Your task to perform on an android device: Show me popular videos on Youtube Image 0: 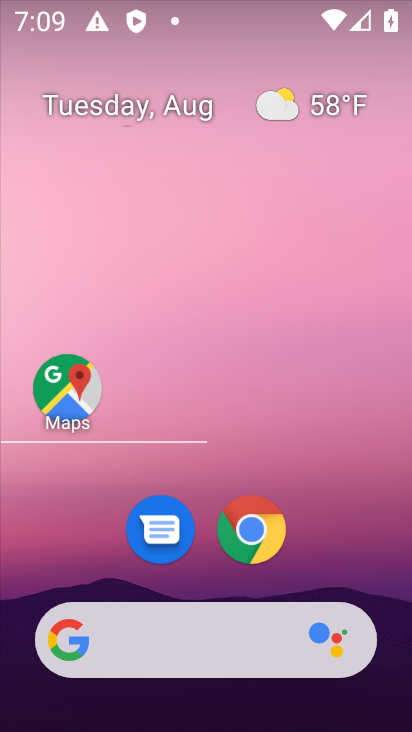
Step 0: press home button
Your task to perform on an android device: Show me popular videos on Youtube Image 1: 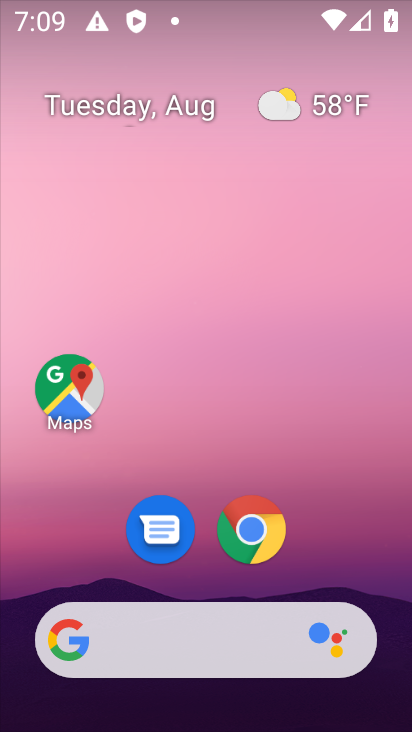
Step 1: drag from (200, 592) to (176, 0)
Your task to perform on an android device: Show me popular videos on Youtube Image 2: 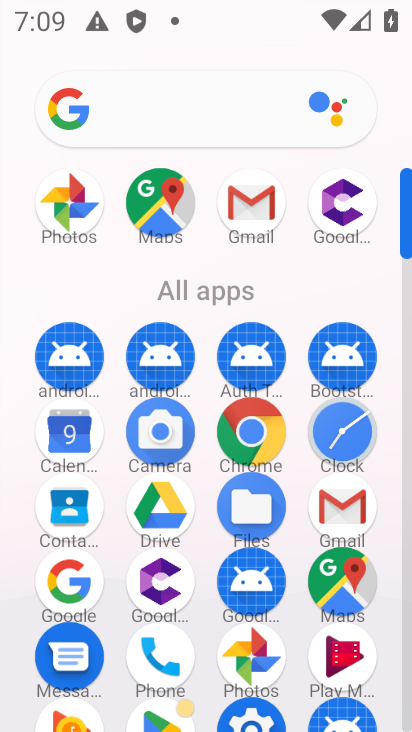
Step 2: drag from (386, 562) to (393, 33)
Your task to perform on an android device: Show me popular videos on Youtube Image 3: 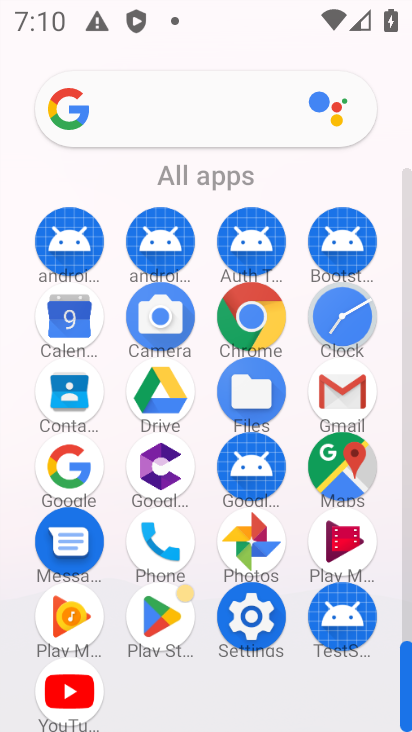
Step 3: click (64, 683)
Your task to perform on an android device: Show me popular videos on Youtube Image 4: 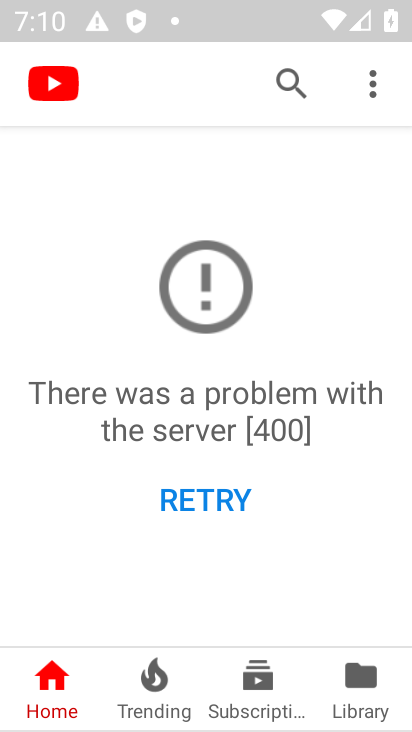
Step 4: click (203, 514)
Your task to perform on an android device: Show me popular videos on Youtube Image 5: 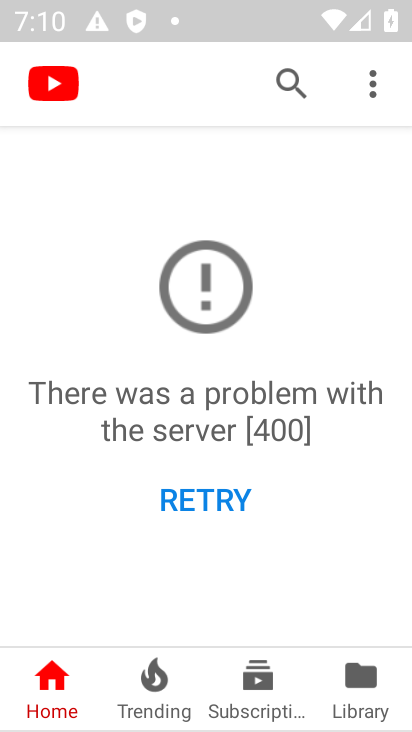
Step 5: click (203, 505)
Your task to perform on an android device: Show me popular videos on Youtube Image 6: 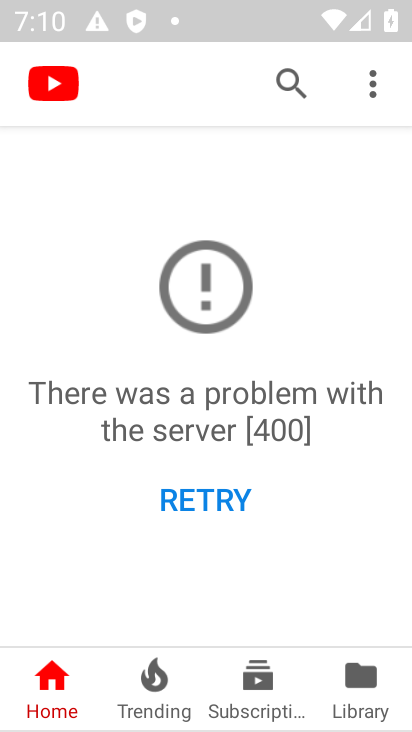
Step 6: click (194, 506)
Your task to perform on an android device: Show me popular videos on Youtube Image 7: 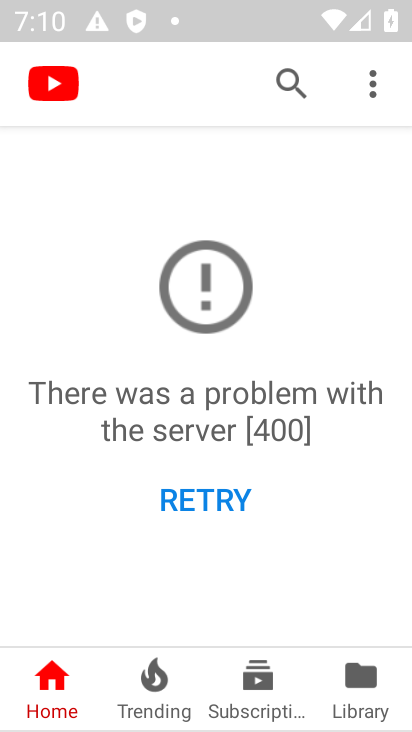
Step 7: task complete